Your task to perform on an android device: Is it going to rain today? Image 0: 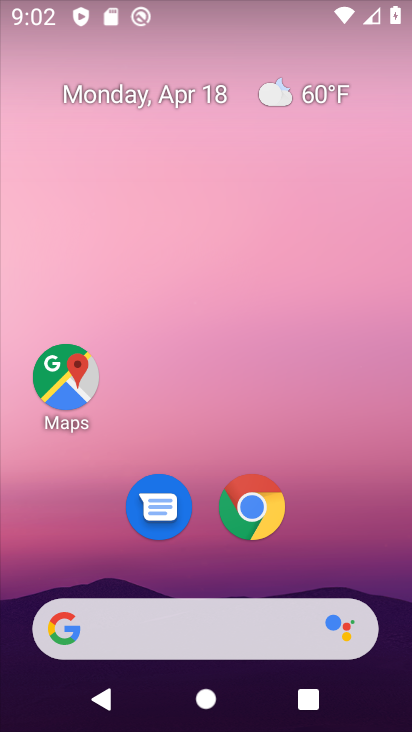
Step 0: click (260, 533)
Your task to perform on an android device: Is it going to rain today? Image 1: 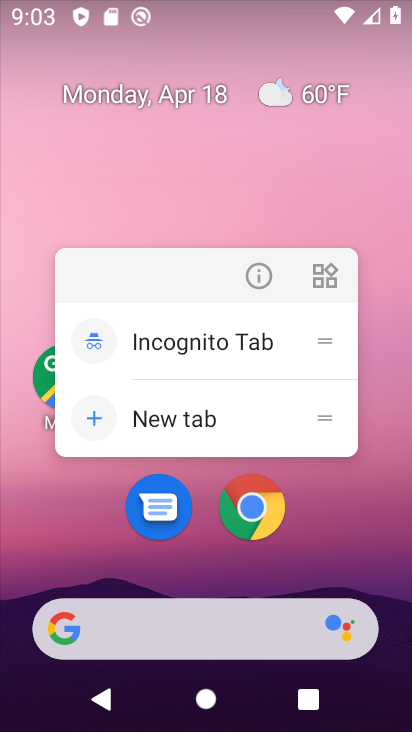
Step 1: click (253, 522)
Your task to perform on an android device: Is it going to rain today? Image 2: 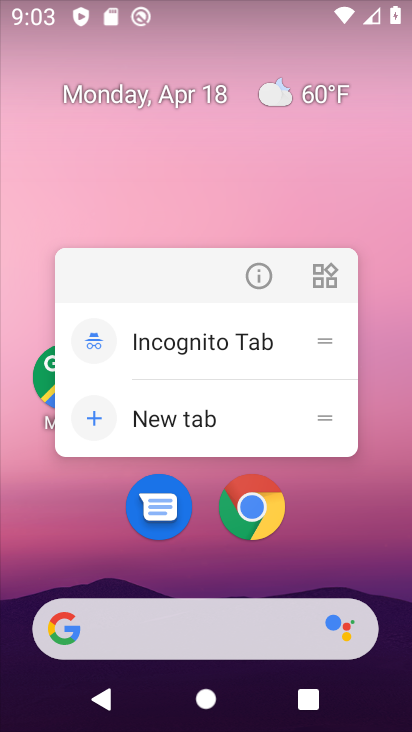
Step 2: click (253, 521)
Your task to perform on an android device: Is it going to rain today? Image 3: 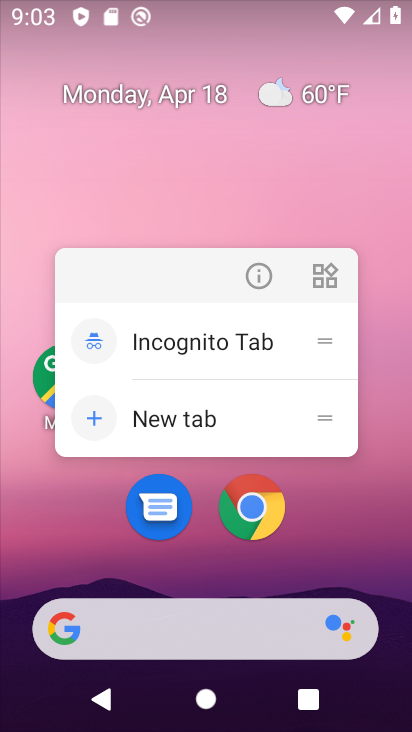
Step 3: click (267, 529)
Your task to perform on an android device: Is it going to rain today? Image 4: 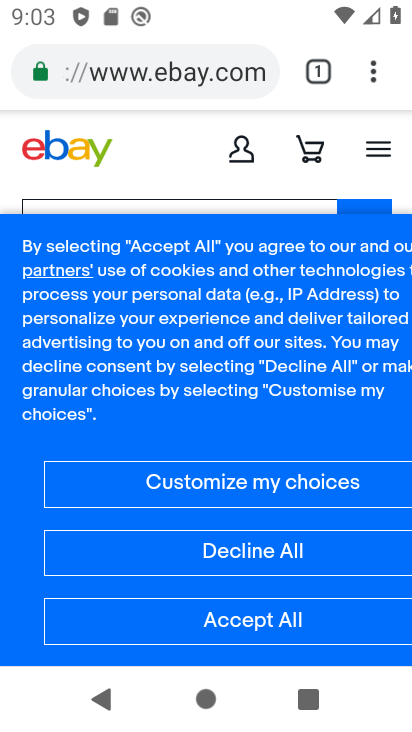
Step 4: click (224, 74)
Your task to perform on an android device: Is it going to rain today? Image 5: 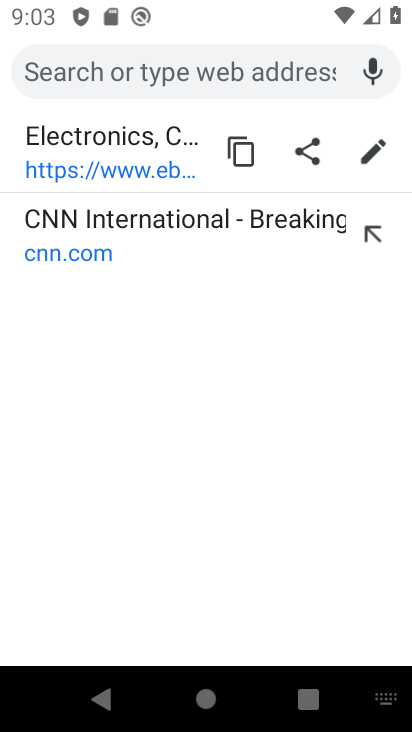
Step 5: type "is it going to rain today"
Your task to perform on an android device: Is it going to rain today? Image 6: 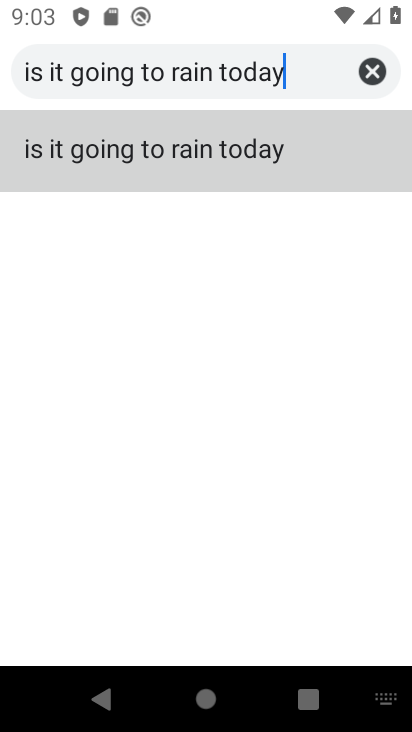
Step 6: click (139, 159)
Your task to perform on an android device: Is it going to rain today? Image 7: 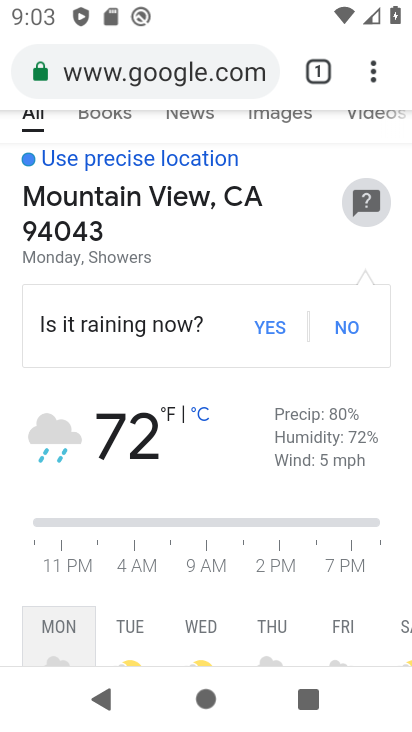
Step 7: task complete